Your task to perform on an android device: stop showing notifications on the lock screen Image 0: 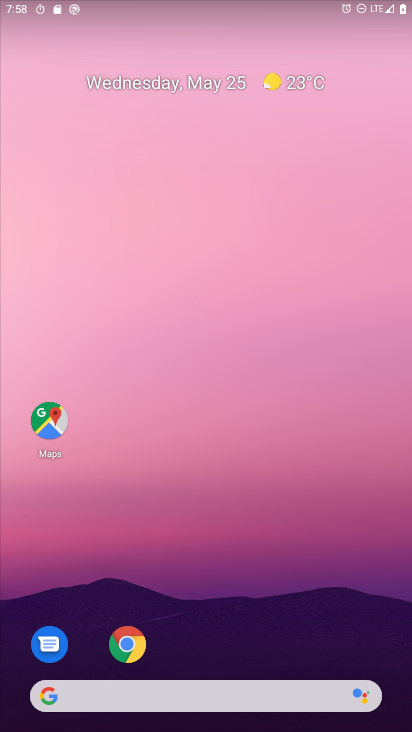
Step 0: drag from (356, 630) to (222, 0)
Your task to perform on an android device: stop showing notifications on the lock screen Image 1: 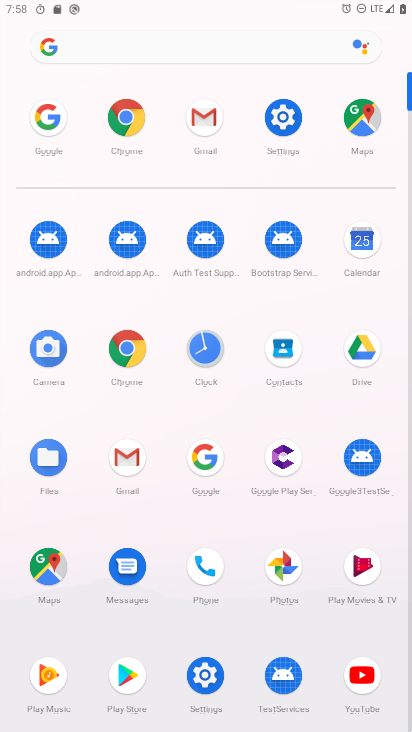
Step 1: click (282, 112)
Your task to perform on an android device: stop showing notifications on the lock screen Image 2: 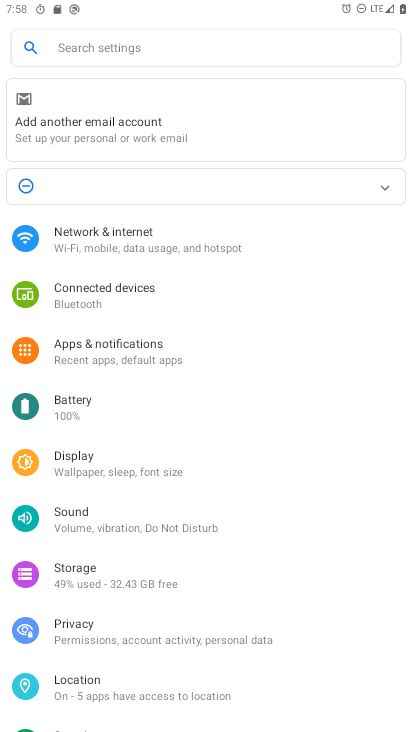
Step 2: click (120, 344)
Your task to perform on an android device: stop showing notifications on the lock screen Image 3: 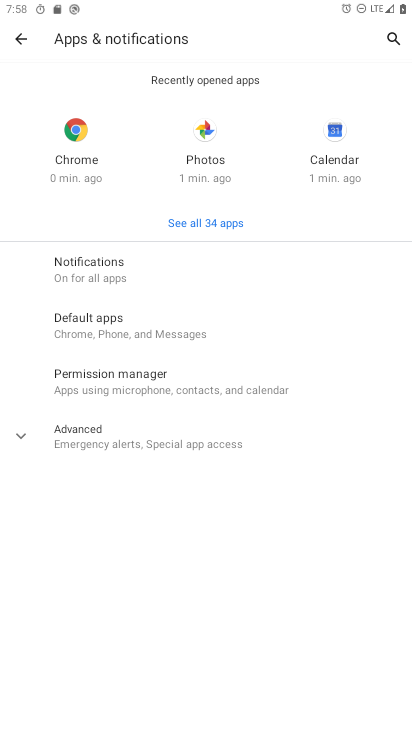
Step 3: click (155, 279)
Your task to perform on an android device: stop showing notifications on the lock screen Image 4: 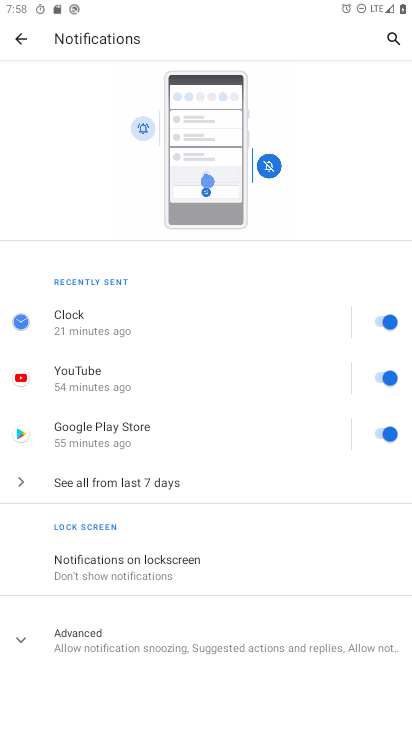
Step 4: click (228, 578)
Your task to perform on an android device: stop showing notifications on the lock screen Image 5: 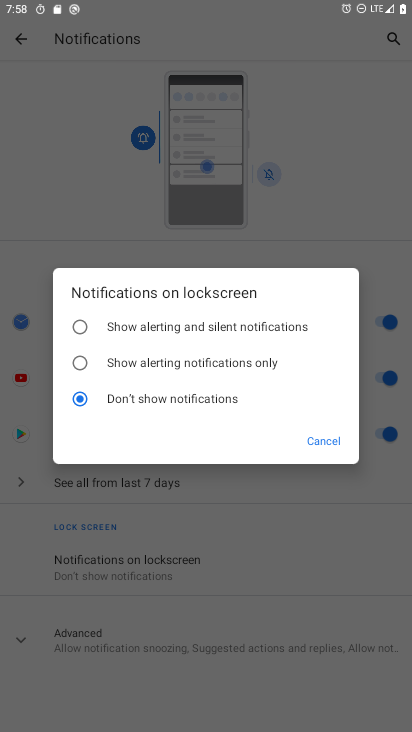
Step 5: task complete